Your task to perform on an android device: Is it going to rain tomorrow? Image 0: 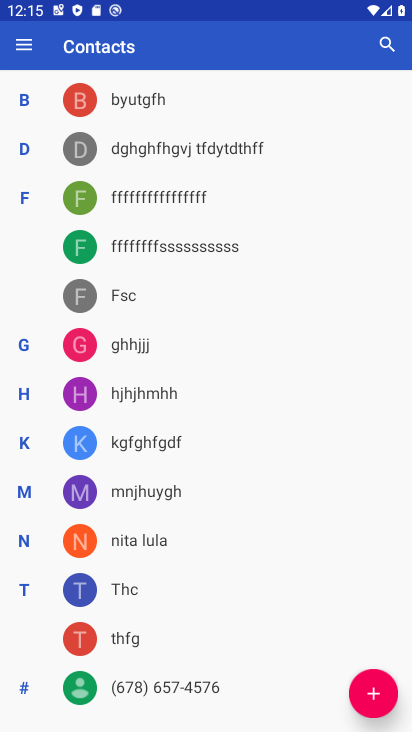
Step 0: press home button
Your task to perform on an android device: Is it going to rain tomorrow? Image 1: 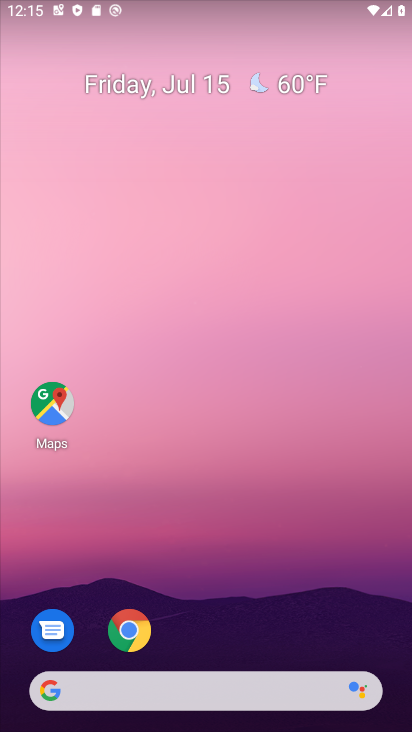
Step 1: click (106, 683)
Your task to perform on an android device: Is it going to rain tomorrow? Image 2: 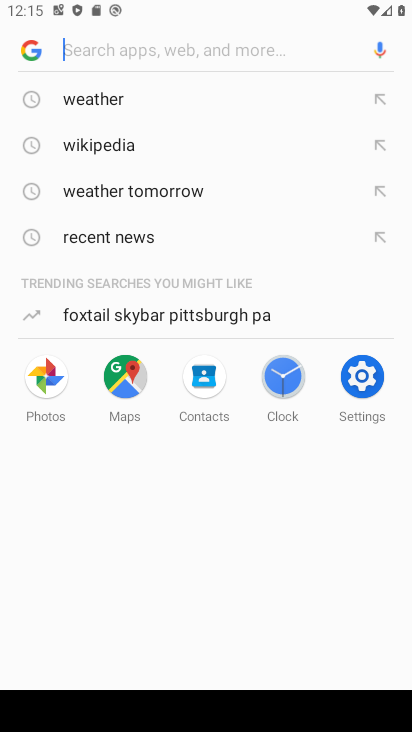
Step 2: type "Is it going to rain tomorrow?"
Your task to perform on an android device: Is it going to rain tomorrow? Image 3: 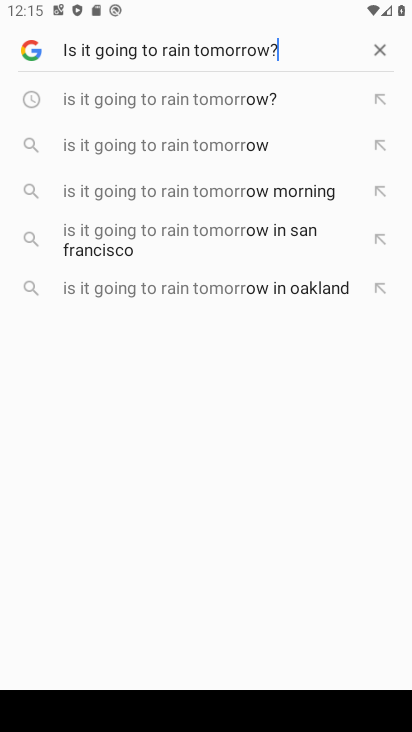
Step 3: type ""
Your task to perform on an android device: Is it going to rain tomorrow? Image 4: 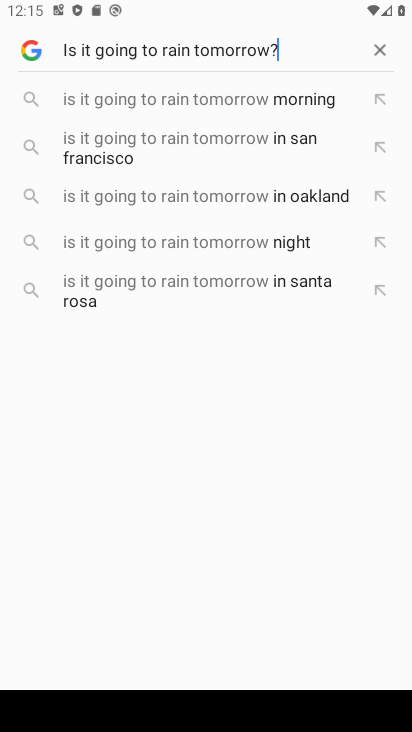
Step 4: type ""
Your task to perform on an android device: Is it going to rain tomorrow? Image 5: 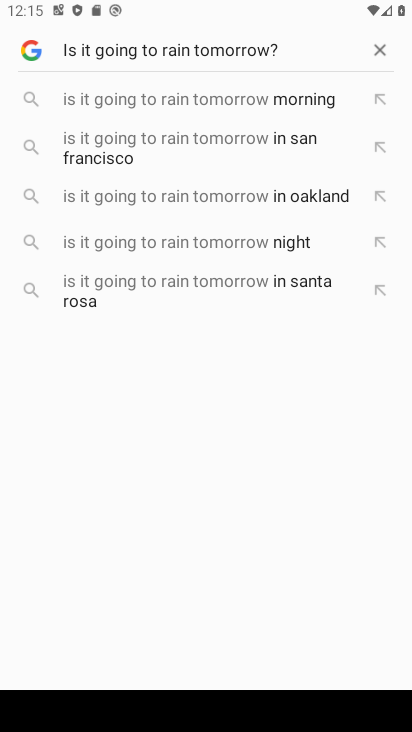
Step 5: type ""
Your task to perform on an android device: Is it going to rain tomorrow? Image 6: 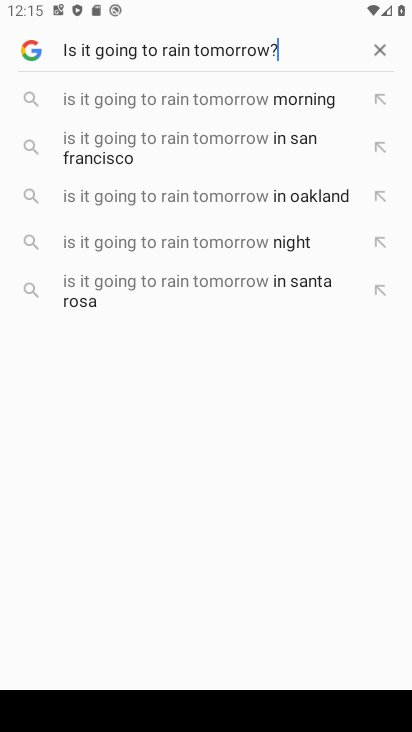
Step 6: task complete